Your task to perform on an android device: snooze an email in the gmail app Image 0: 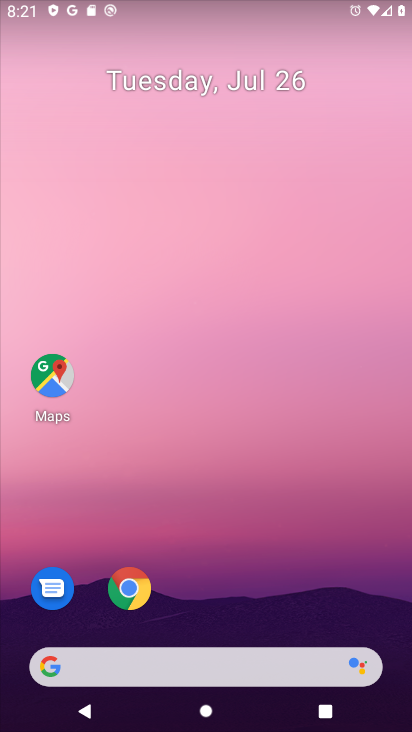
Step 0: drag from (182, 614) to (183, 181)
Your task to perform on an android device: snooze an email in the gmail app Image 1: 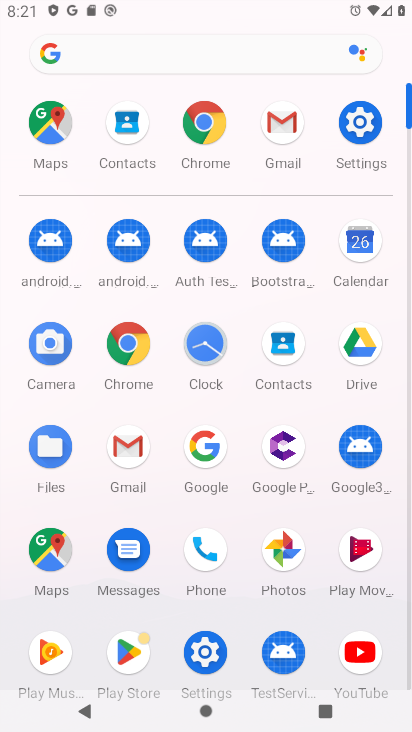
Step 1: click (137, 447)
Your task to perform on an android device: snooze an email in the gmail app Image 2: 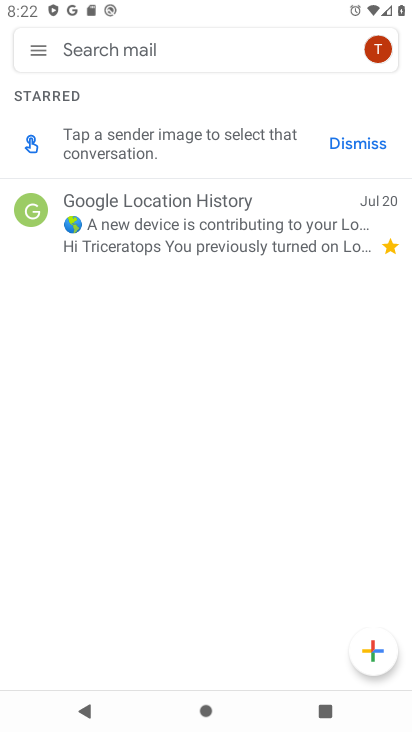
Step 2: click (123, 277)
Your task to perform on an android device: snooze an email in the gmail app Image 3: 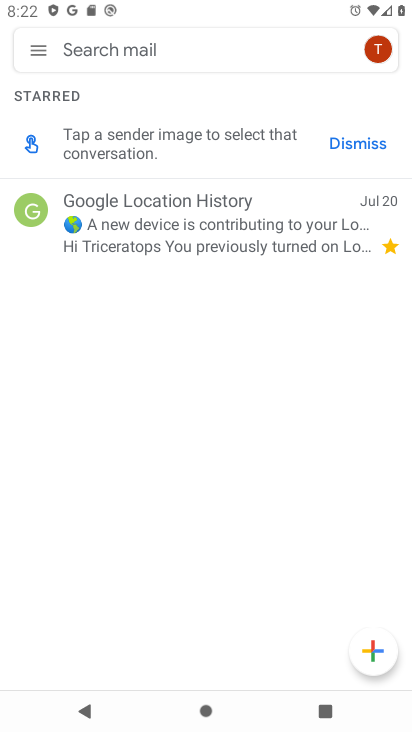
Step 3: click (157, 221)
Your task to perform on an android device: snooze an email in the gmail app Image 4: 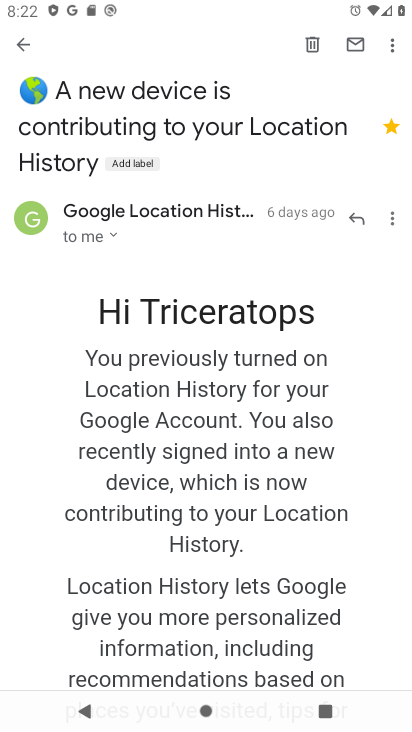
Step 4: click (398, 47)
Your task to perform on an android device: snooze an email in the gmail app Image 5: 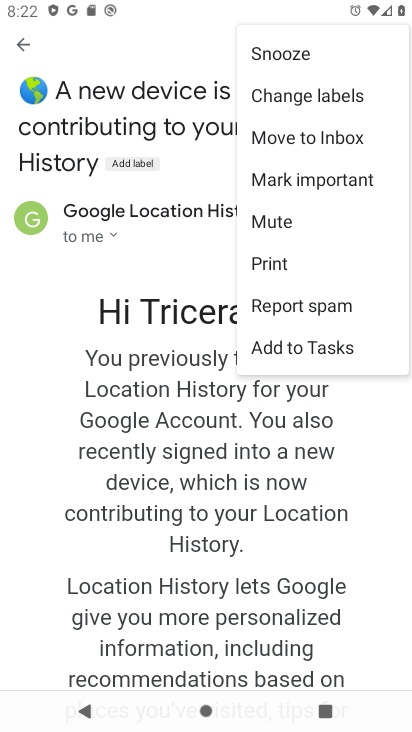
Step 5: click (301, 49)
Your task to perform on an android device: snooze an email in the gmail app Image 6: 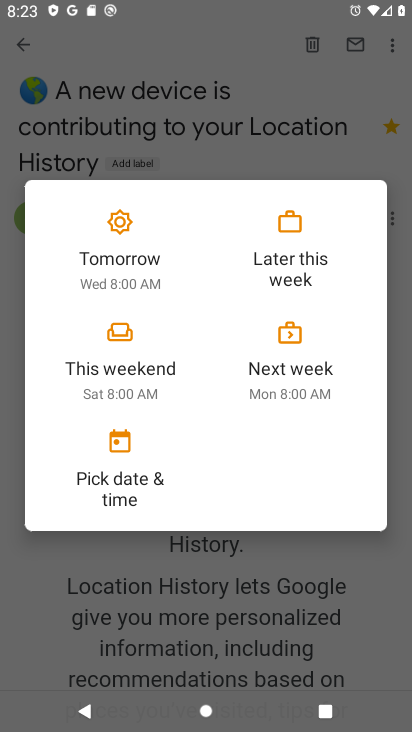
Step 6: click (109, 261)
Your task to perform on an android device: snooze an email in the gmail app Image 7: 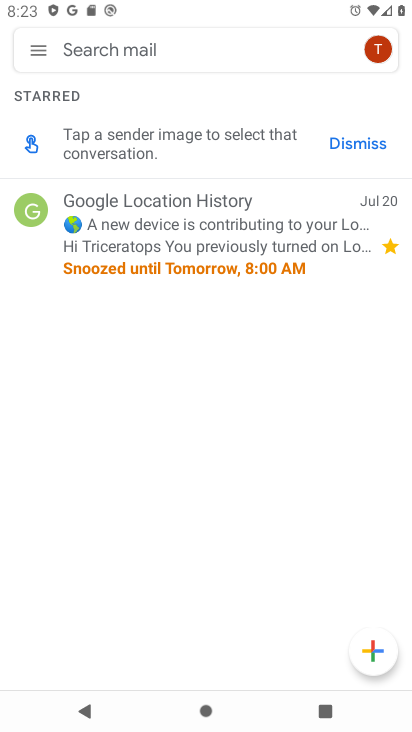
Step 7: task complete